Your task to perform on an android device: open a new tab in the chrome app Image 0: 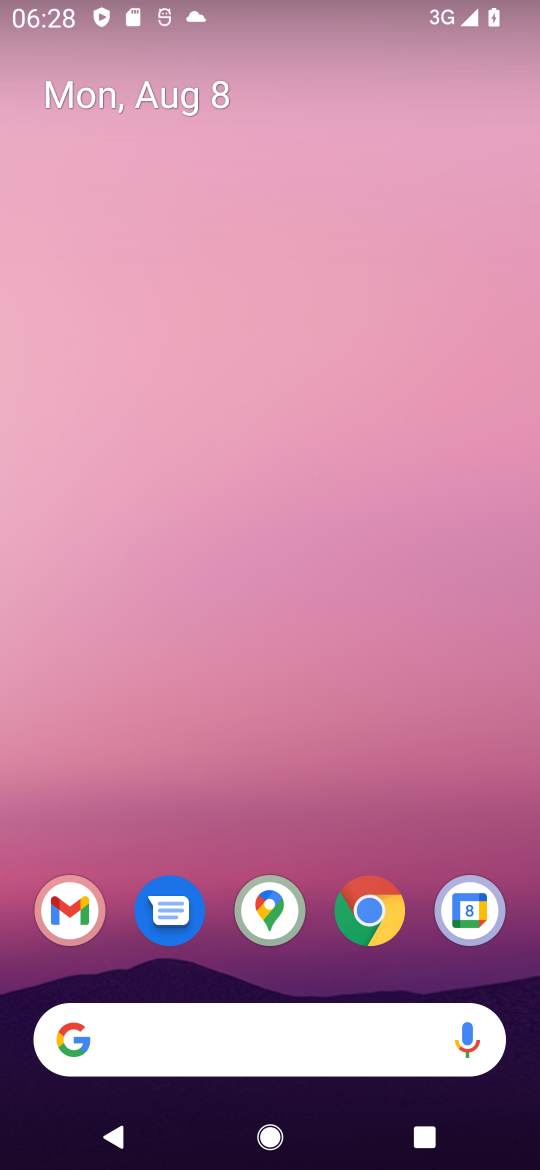
Step 0: click (368, 910)
Your task to perform on an android device: open a new tab in the chrome app Image 1: 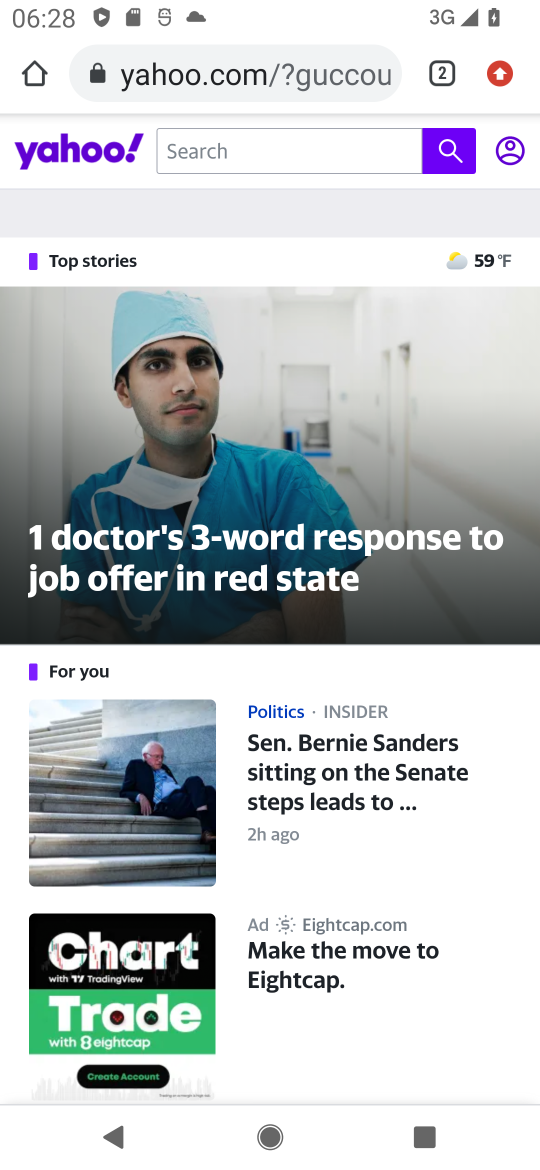
Step 1: click (499, 79)
Your task to perform on an android device: open a new tab in the chrome app Image 2: 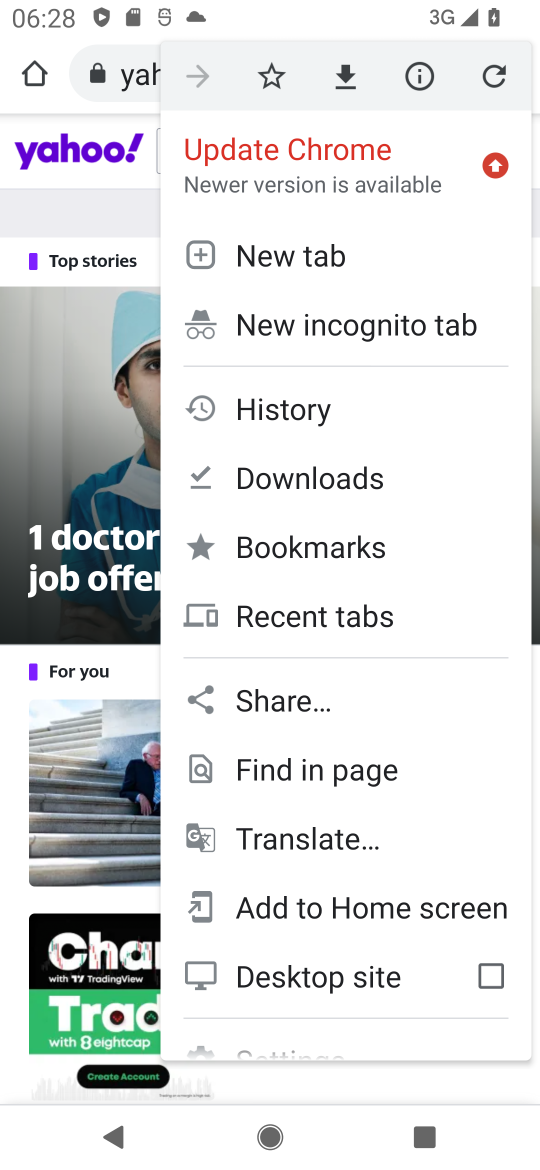
Step 2: click (332, 264)
Your task to perform on an android device: open a new tab in the chrome app Image 3: 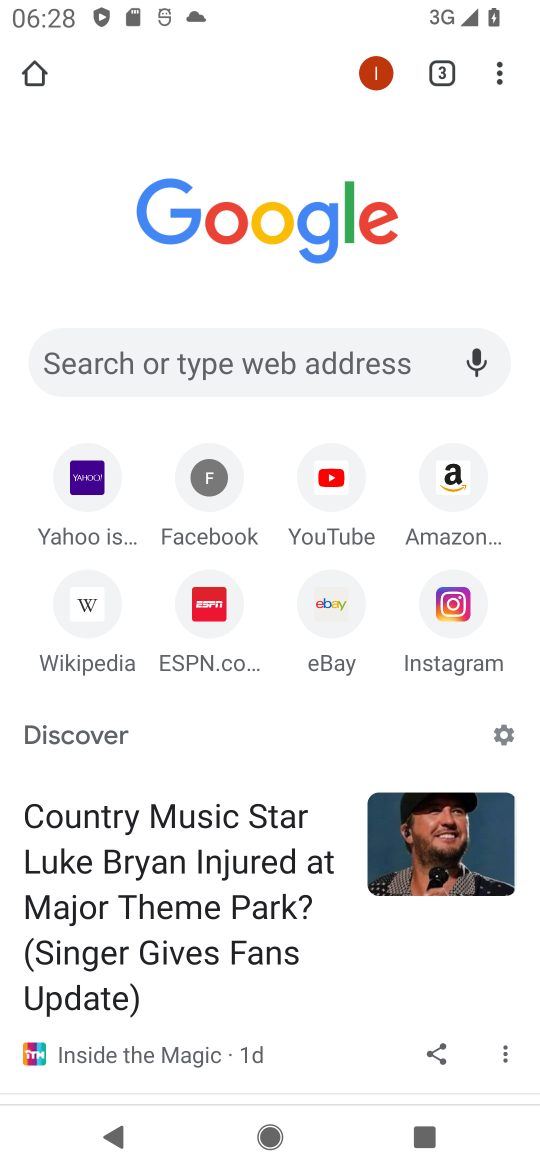
Step 3: task complete